Your task to perform on an android device: Check the weather Image 0: 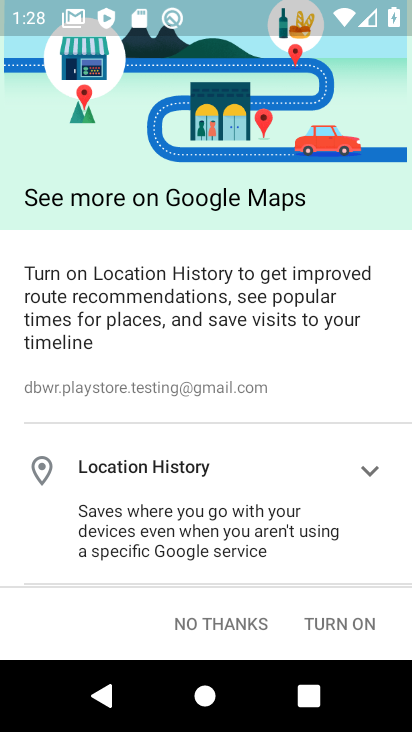
Step 0: press back button
Your task to perform on an android device: Check the weather Image 1: 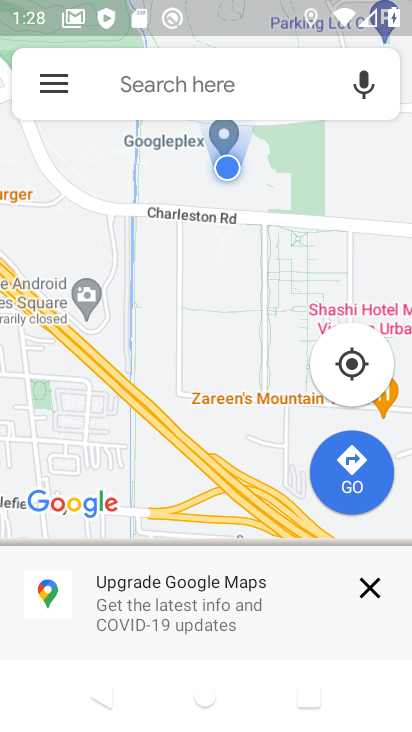
Step 1: press home button
Your task to perform on an android device: Check the weather Image 2: 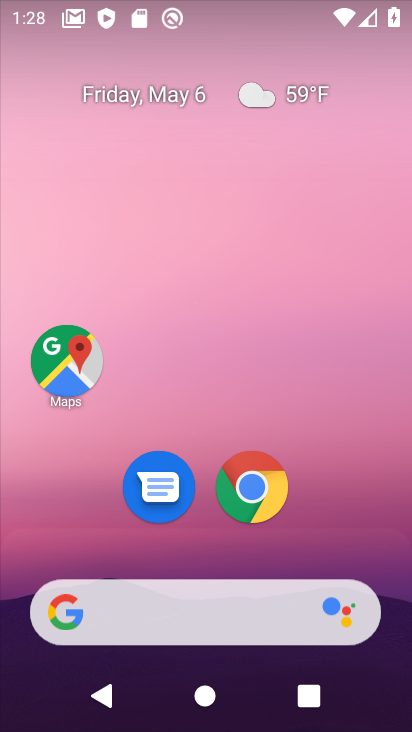
Step 2: click (278, 82)
Your task to perform on an android device: Check the weather Image 3: 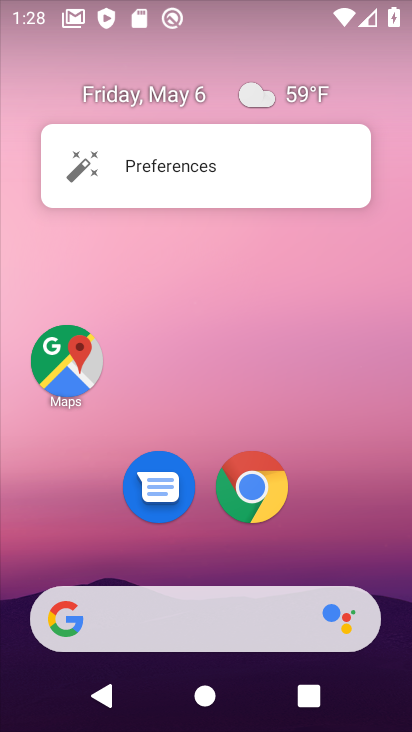
Step 3: click (279, 101)
Your task to perform on an android device: Check the weather Image 4: 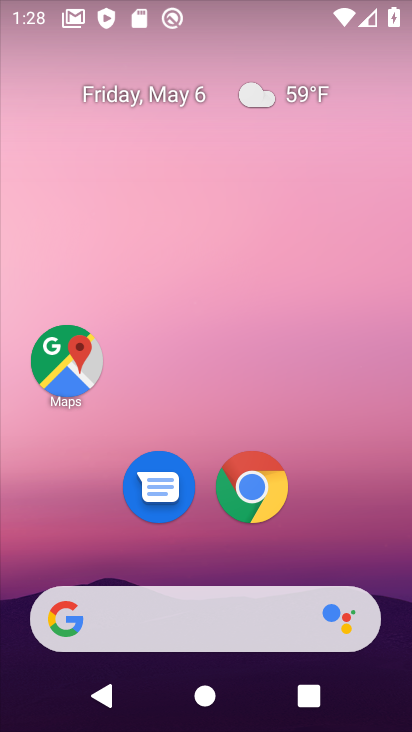
Step 4: click (263, 96)
Your task to perform on an android device: Check the weather Image 5: 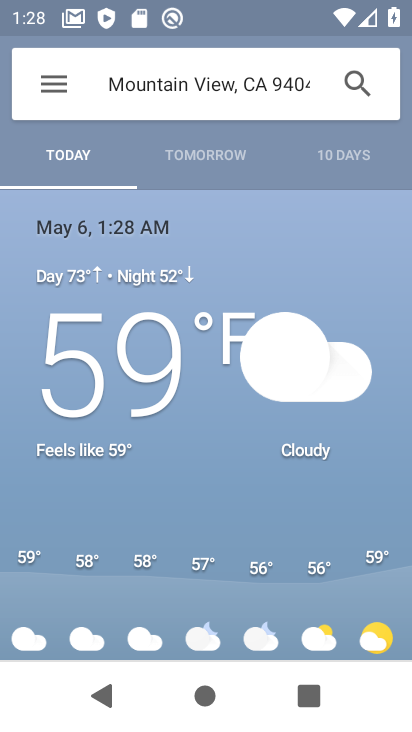
Step 5: task complete